Your task to perform on an android device: change the clock display to analog Image 0: 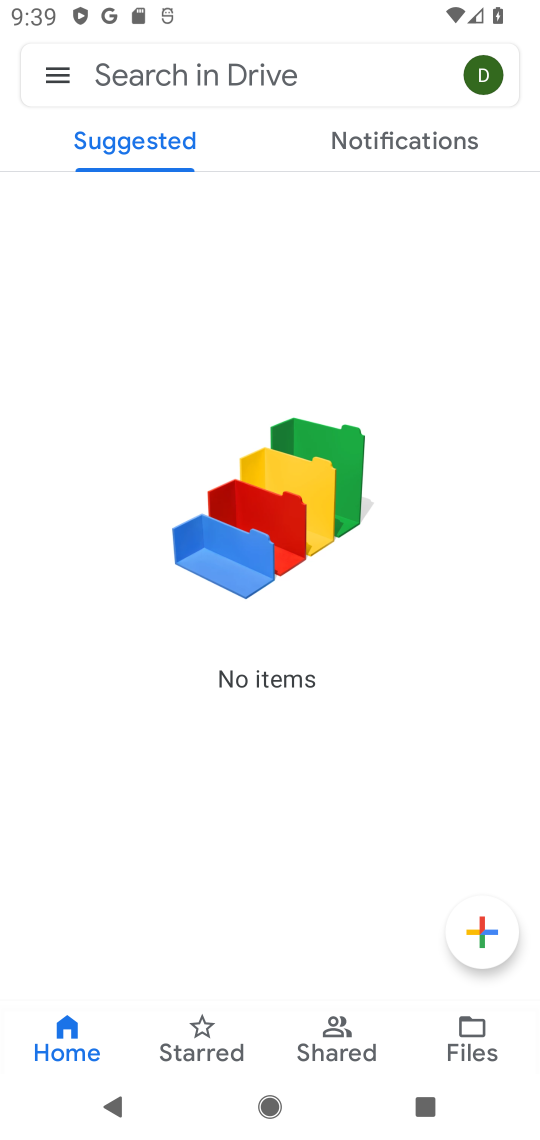
Step 0: press home button
Your task to perform on an android device: change the clock display to analog Image 1: 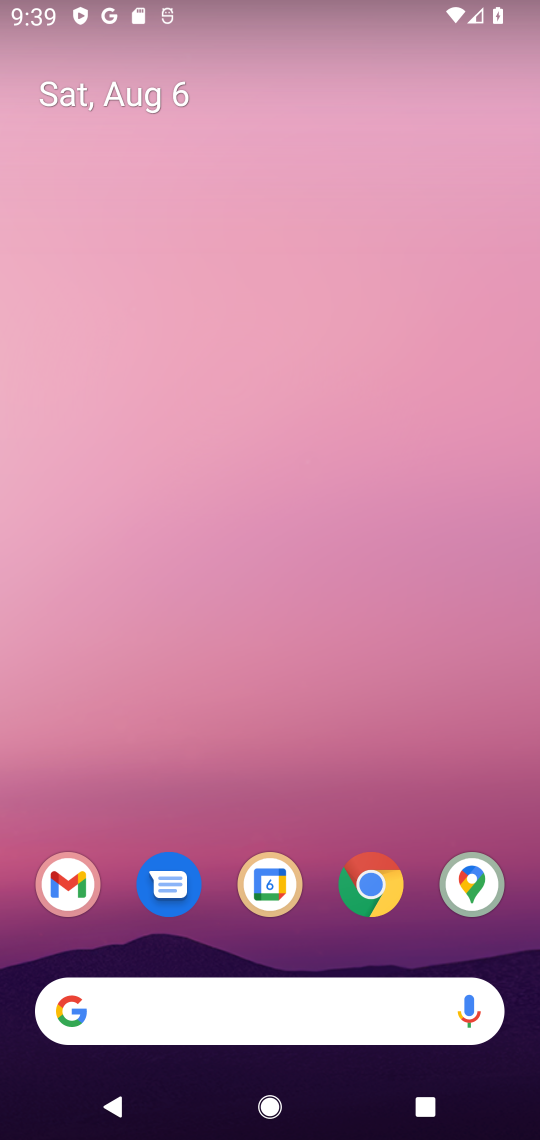
Step 1: drag from (428, 945) to (443, 4)
Your task to perform on an android device: change the clock display to analog Image 2: 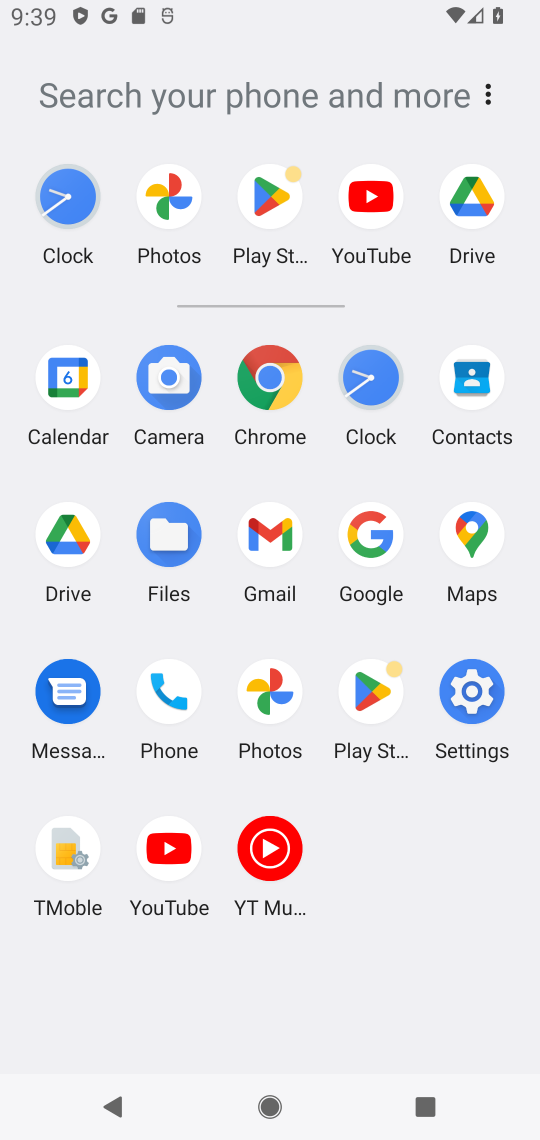
Step 2: click (369, 379)
Your task to perform on an android device: change the clock display to analog Image 3: 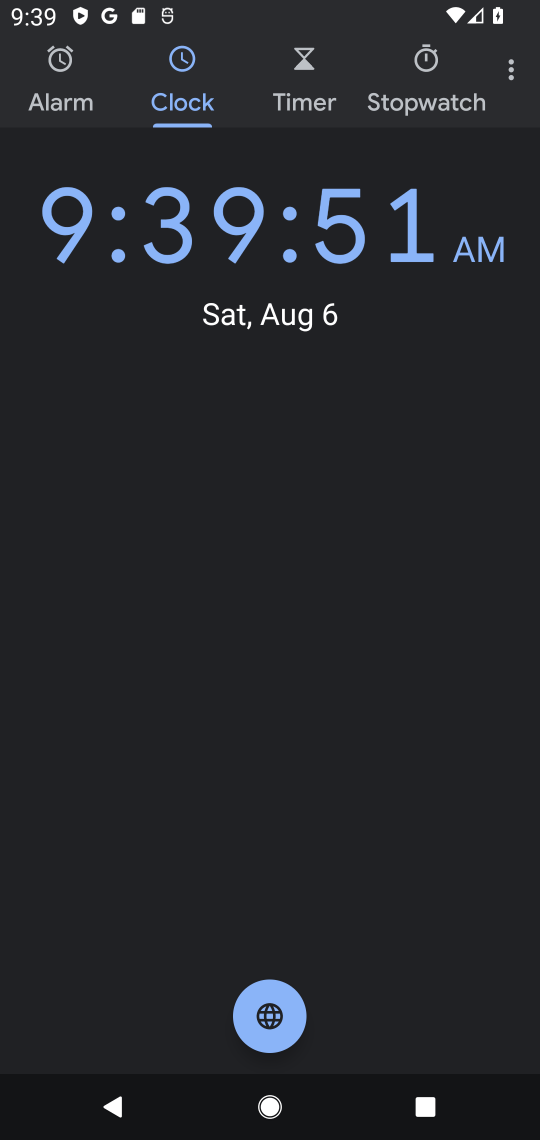
Step 3: click (509, 81)
Your task to perform on an android device: change the clock display to analog Image 4: 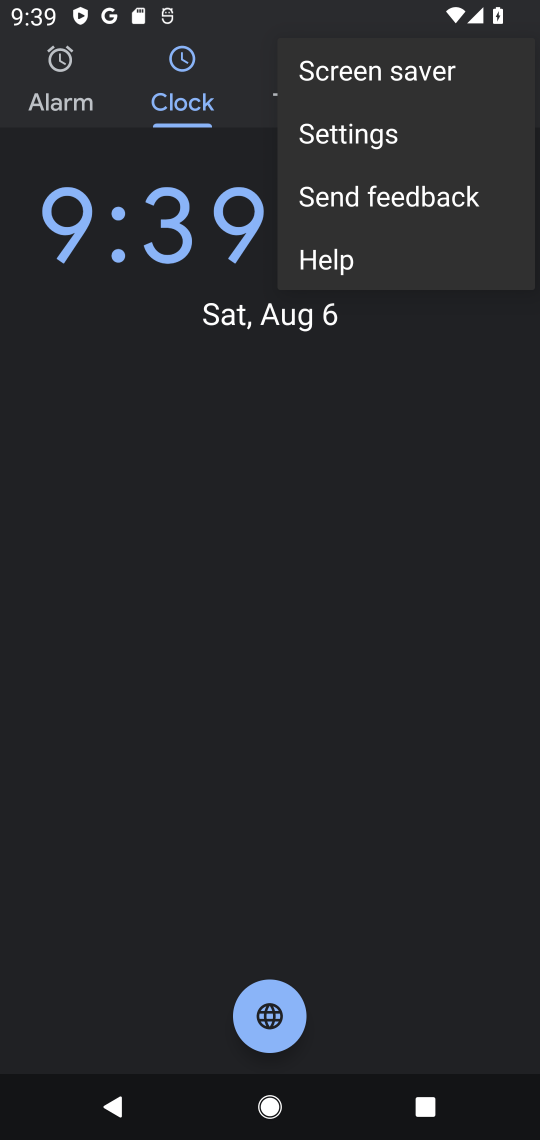
Step 4: click (333, 123)
Your task to perform on an android device: change the clock display to analog Image 5: 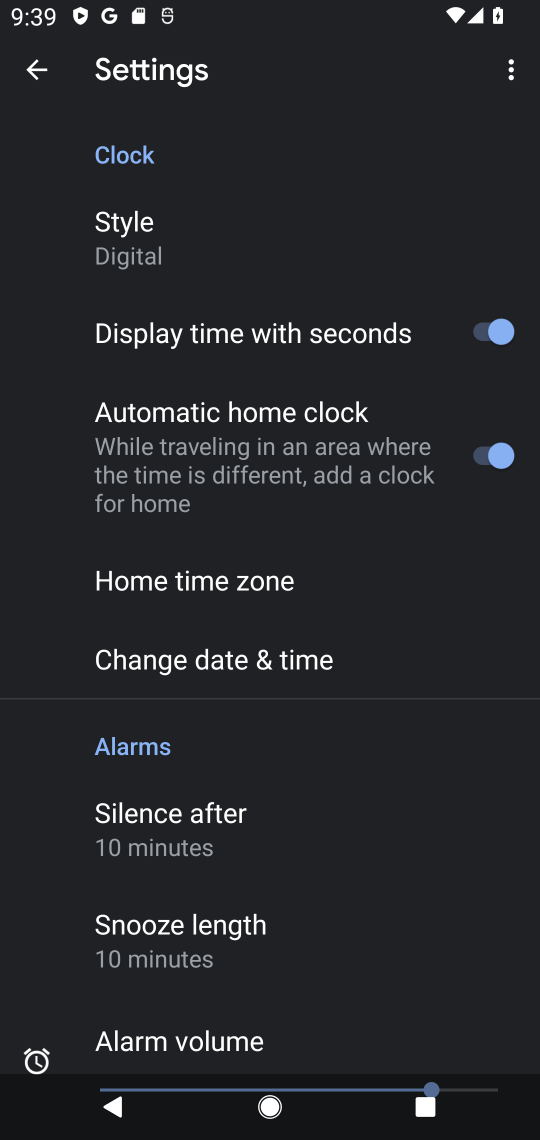
Step 5: click (132, 247)
Your task to perform on an android device: change the clock display to analog Image 6: 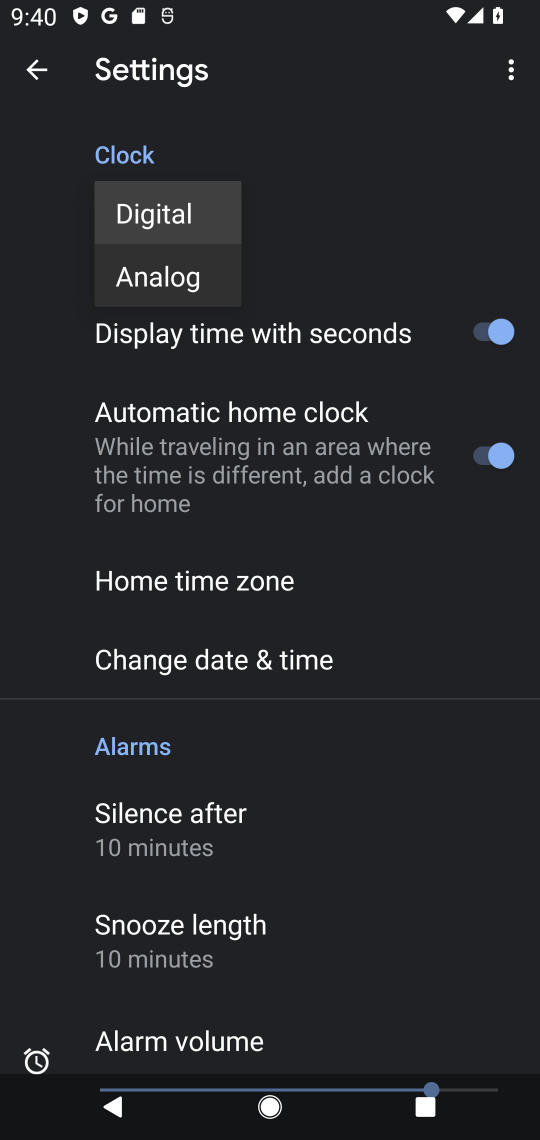
Step 6: click (165, 279)
Your task to perform on an android device: change the clock display to analog Image 7: 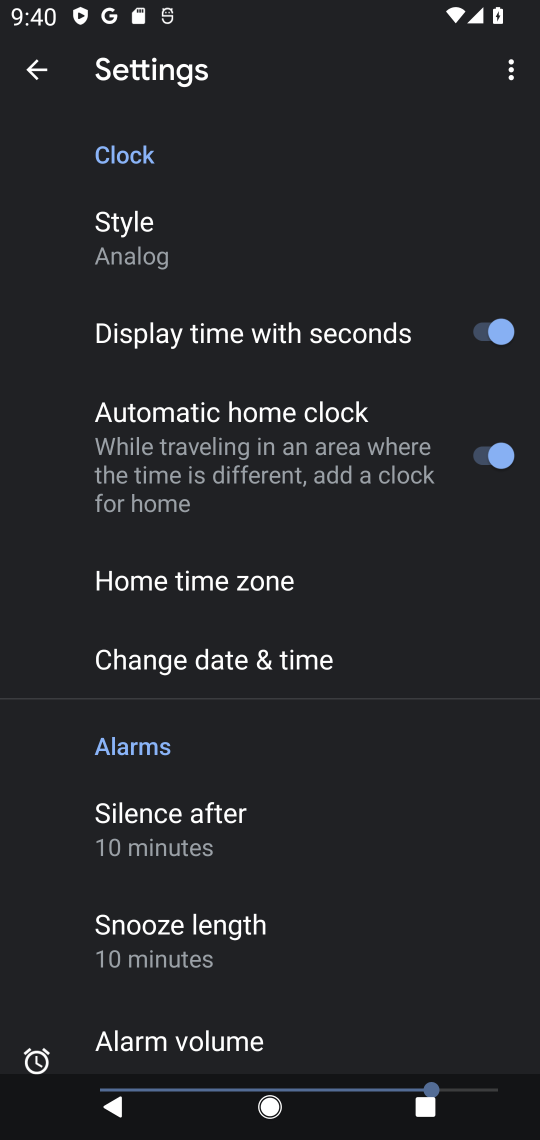
Step 7: task complete